Your task to perform on an android device: Search for seafood restaurants on Google Maps Image 0: 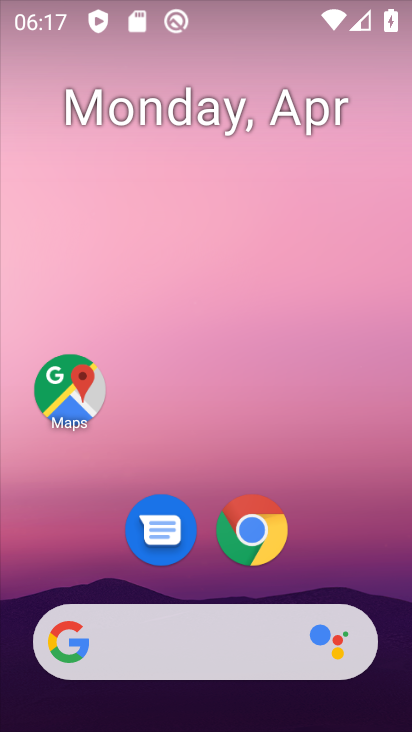
Step 0: drag from (203, 575) to (235, 49)
Your task to perform on an android device: Search for seafood restaurants on Google Maps Image 1: 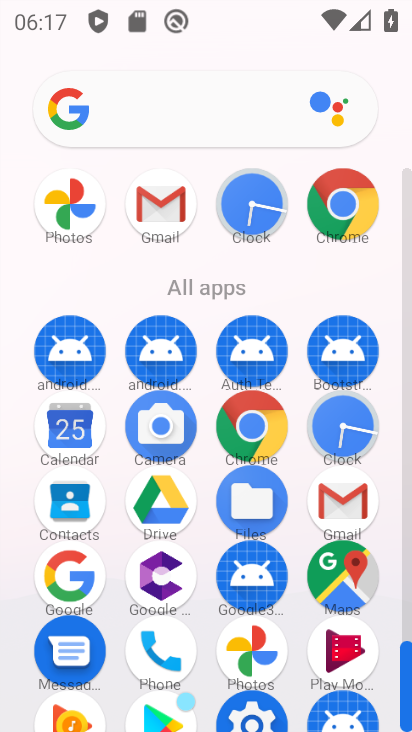
Step 1: click (341, 570)
Your task to perform on an android device: Search for seafood restaurants on Google Maps Image 2: 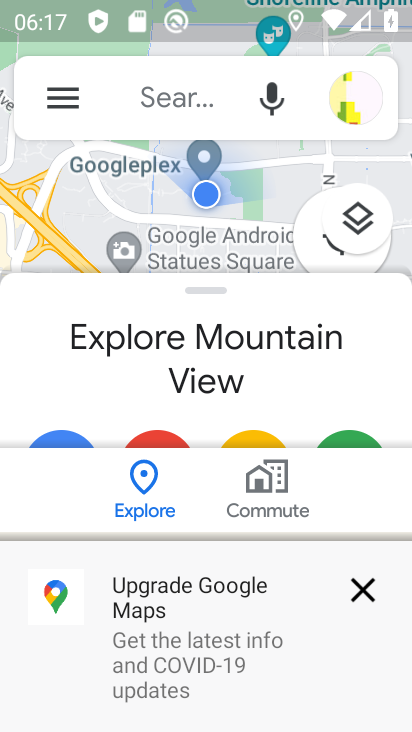
Step 2: click (354, 592)
Your task to perform on an android device: Search for seafood restaurants on Google Maps Image 3: 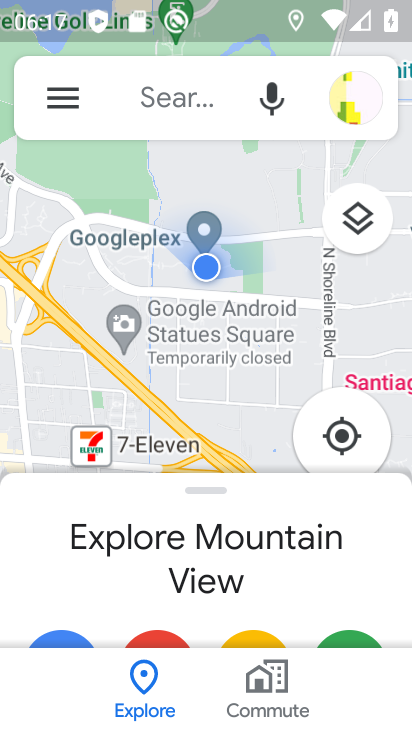
Step 3: click (138, 89)
Your task to perform on an android device: Search for seafood restaurants on Google Maps Image 4: 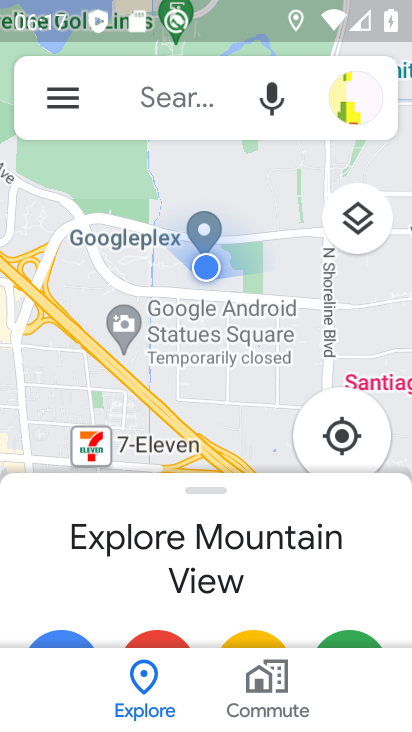
Step 4: click (170, 103)
Your task to perform on an android device: Search for seafood restaurants on Google Maps Image 5: 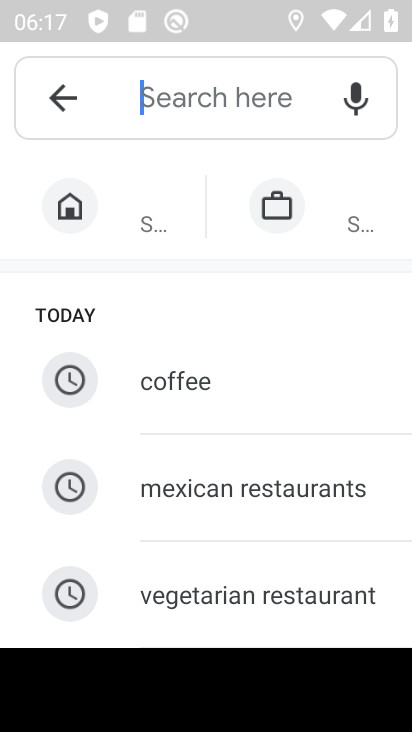
Step 5: drag from (244, 575) to (228, 221)
Your task to perform on an android device: Search for seafood restaurants on Google Maps Image 6: 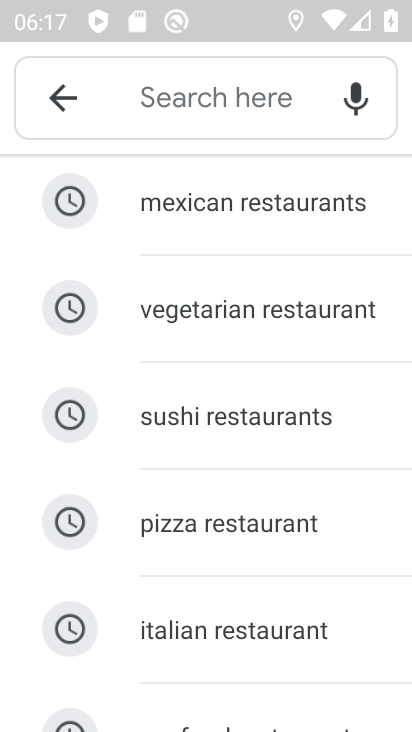
Step 6: drag from (237, 635) to (250, 257)
Your task to perform on an android device: Search for seafood restaurants on Google Maps Image 7: 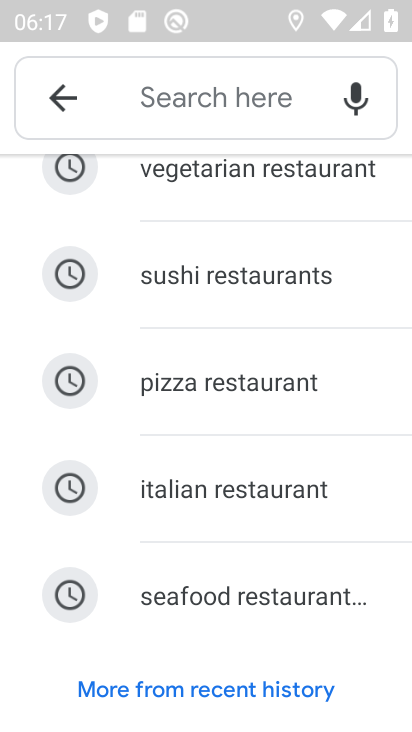
Step 7: click (167, 609)
Your task to perform on an android device: Search for seafood restaurants on Google Maps Image 8: 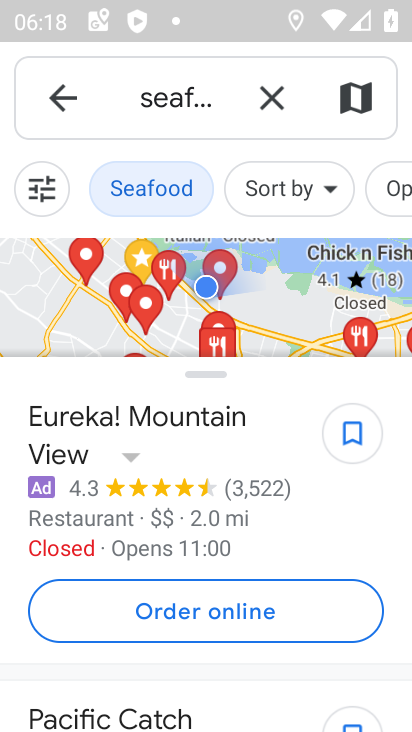
Step 8: task complete